Your task to perform on an android device: Open battery settings Image 0: 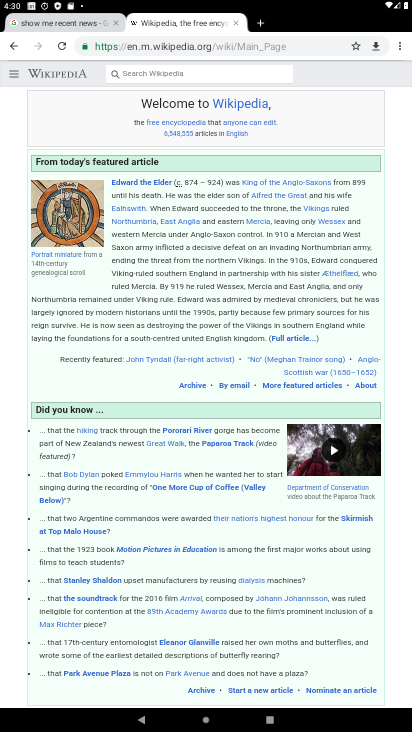
Step 0: press home button
Your task to perform on an android device: Open battery settings Image 1: 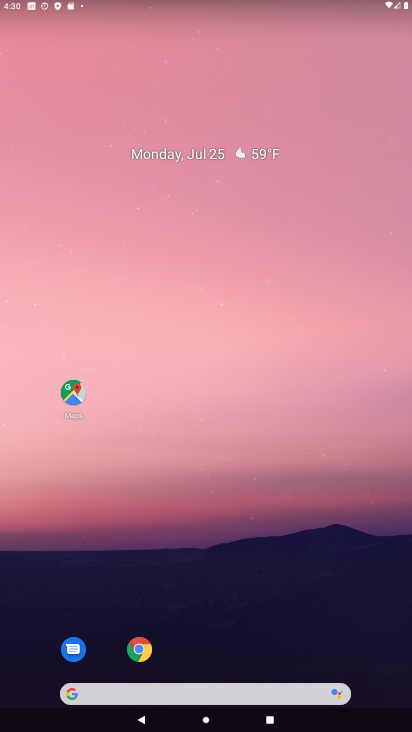
Step 1: drag from (260, 652) to (178, 51)
Your task to perform on an android device: Open battery settings Image 2: 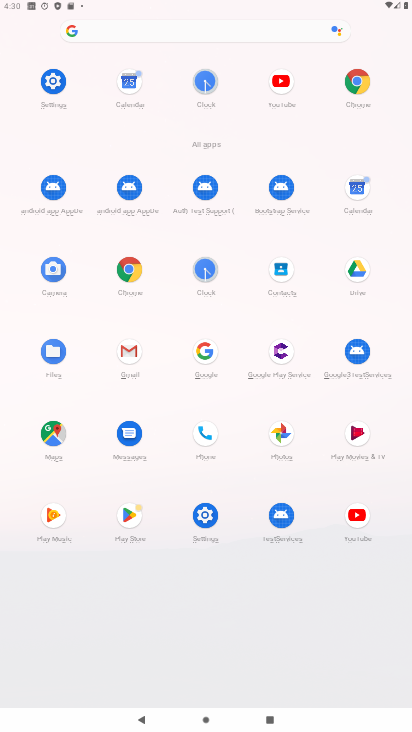
Step 2: click (53, 75)
Your task to perform on an android device: Open battery settings Image 3: 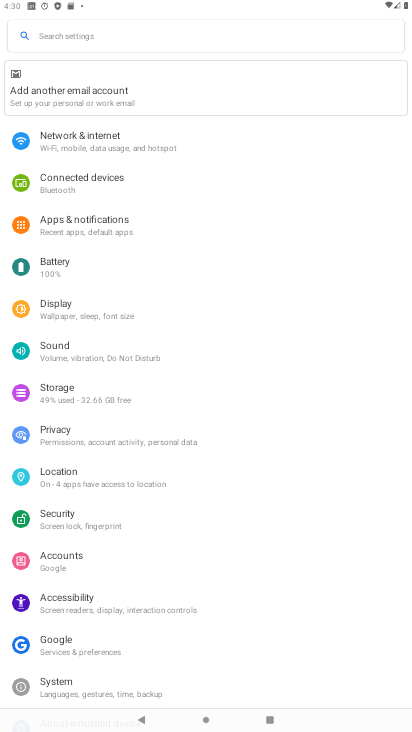
Step 3: click (86, 266)
Your task to perform on an android device: Open battery settings Image 4: 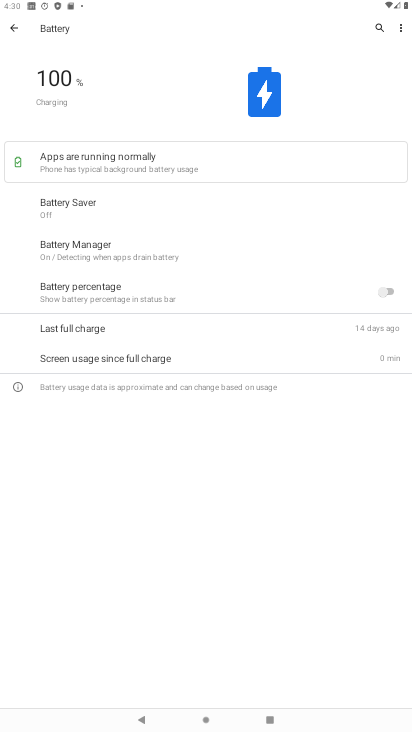
Step 4: task complete